Your task to perform on an android device: toggle improve location accuracy Image 0: 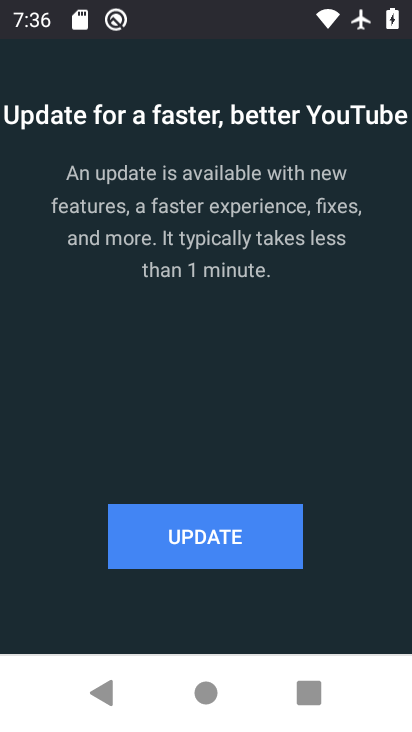
Step 0: press home button
Your task to perform on an android device: toggle improve location accuracy Image 1: 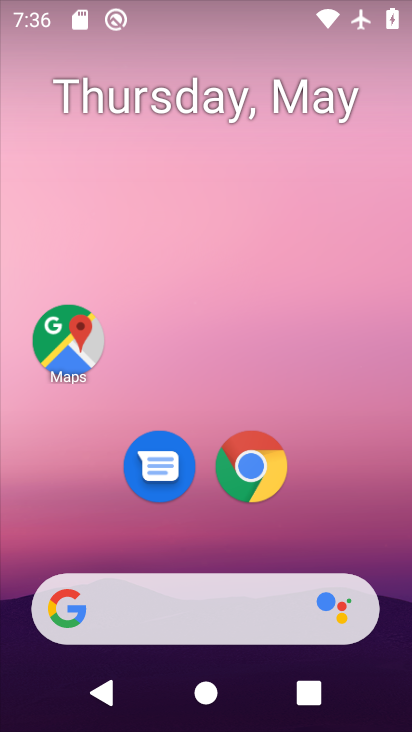
Step 1: drag from (386, 509) to (320, 198)
Your task to perform on an android device: toggle improve location accuracy Image 2: 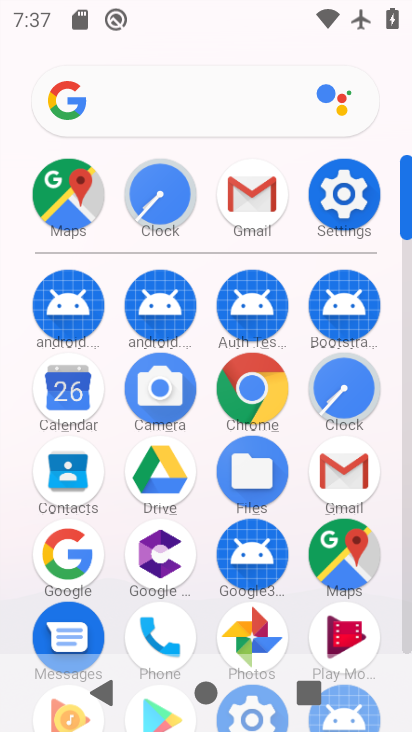
Step 2: click (325, 195)
Your task to perform on an android device: toggle improve location accuracy Image 3: 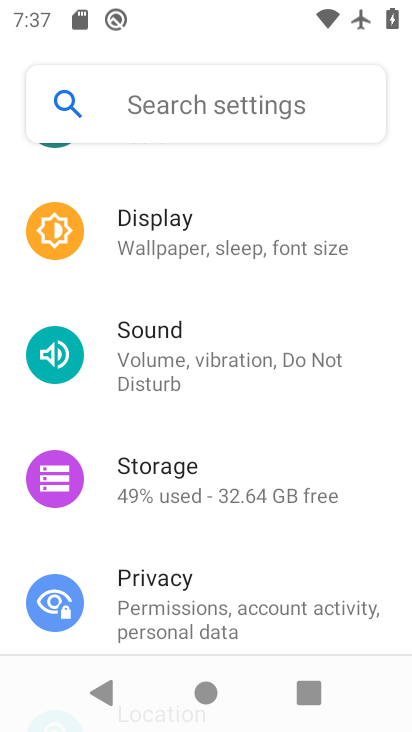
Step 3: drag from (177, 522) to (227, 237)
Your task to perform on an android device: toggle improve location accuracy Image 4: 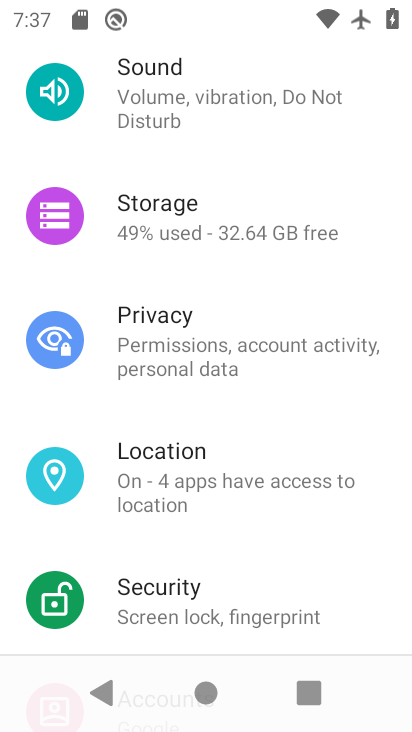
Step 4: click (278, 479)
Your task to perform on an android device: toggle improve location accuracy Image 5: 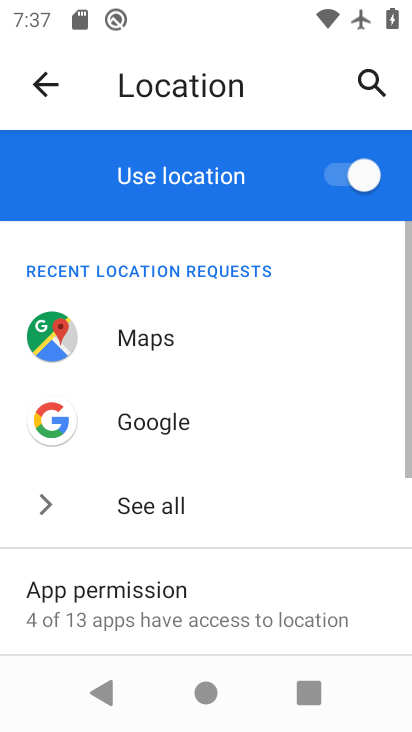
Step 5: drag from (195, 572) to (264, 296)
Your task to perform on an android device: toggle improve location accuracy Image 6: 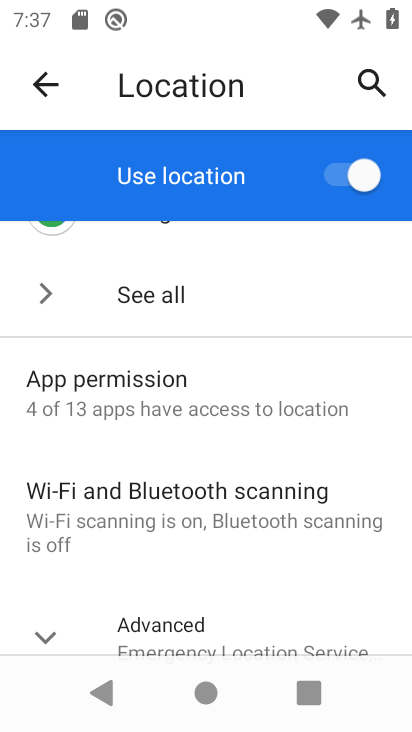
Step 6: drag from (195, 598) to (219, 410)
Your task to perform on an android device: toggle improve location accuracy Image 7: 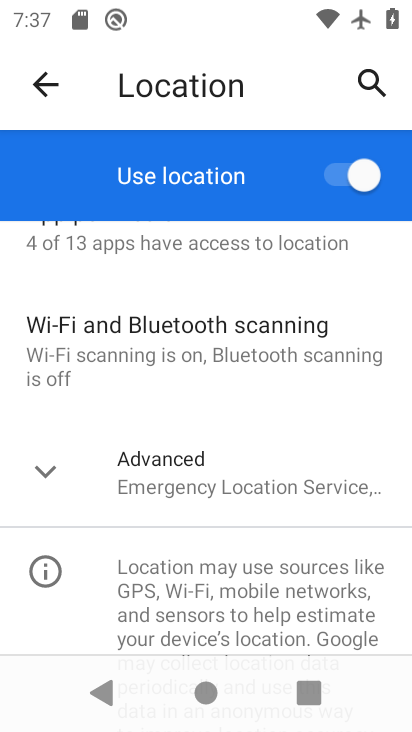
Step 7: click (193, 486)
Your task to perform on an android device: toggle improve location accuracy Image 8: 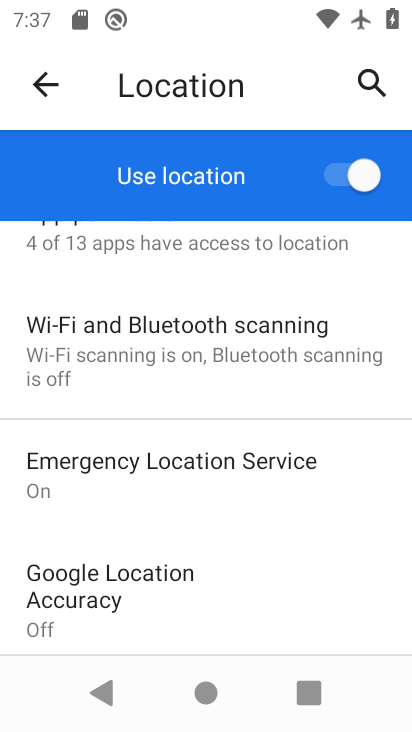
Step 8: drag from (184, 554) to (214, 437)
Your task to perform on an android device: toggle improve location accuracy Image 9: 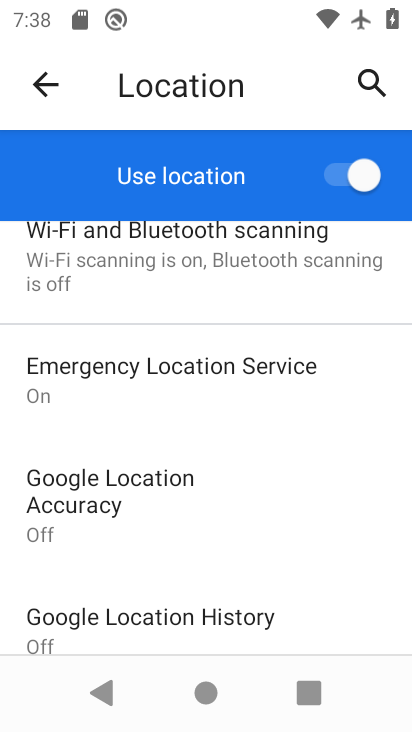
Step 9: drag from (246, 625) to (275, 395)
Your task to perform on an android device: toggle improve location accuracy Image 10: 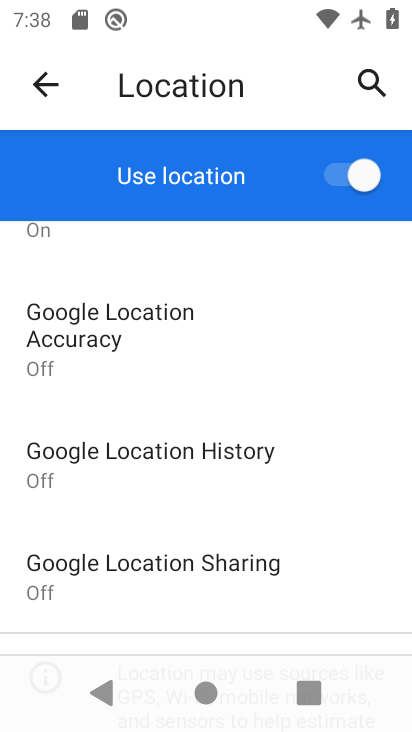
Step 10: click (211, 350)
Your task to perform on an android device: toggle improve location accuracy Image 11: 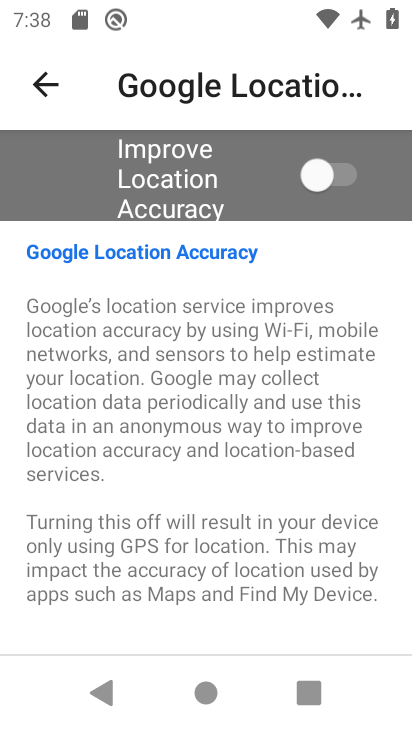
Step 11: click (342, 147)
Your task to perform on an android device: toggle improve location accuracy Image 12: 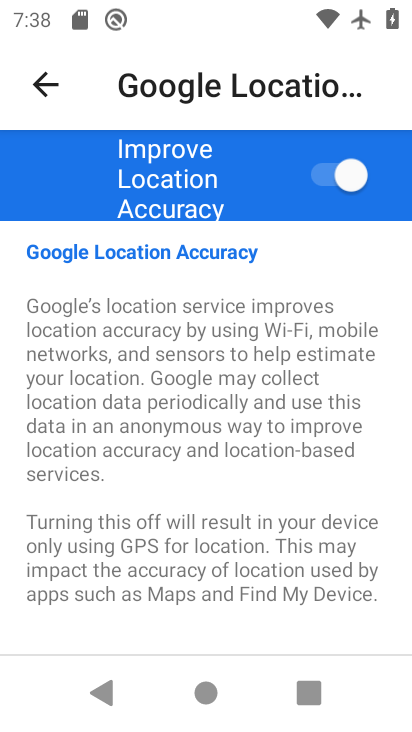
Step 12: task complete